Your task to perform on an android device: Open Reddit.com Image 0: 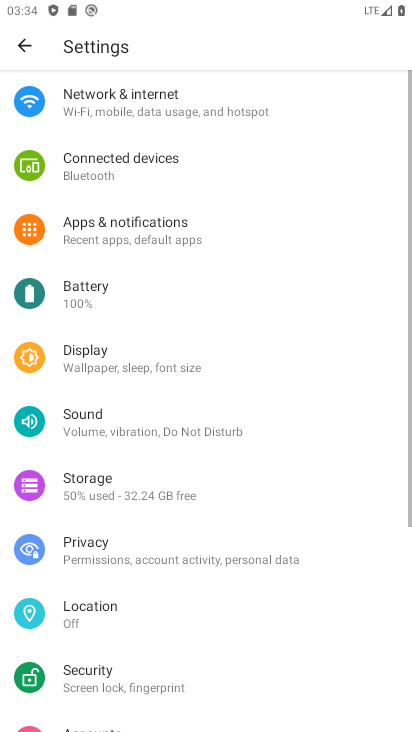
Step 0: press home button
Your task to perform on an android device: Open Reddit.com Image 1: 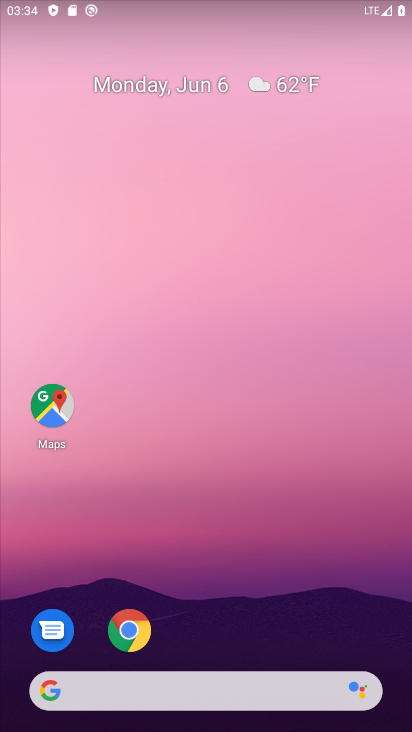
Step 1: click (142, 622)
Your task to perform on an android device: Open Reddit.com Image 2: 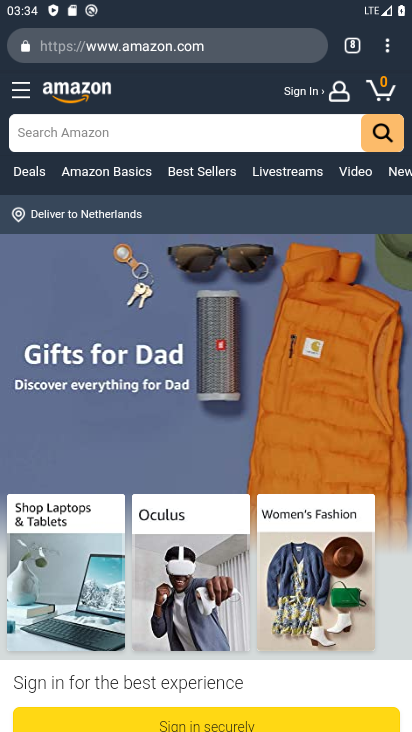
Step 2: click (161, 44)
Your task to perform on an android device: Open Reddit.com Image 3: 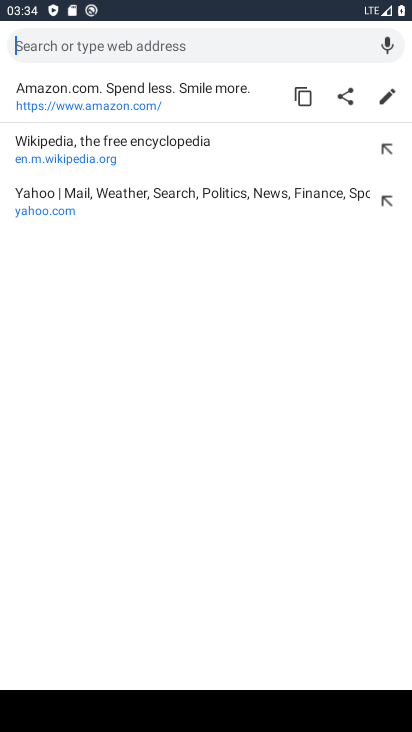
Step 3: type "Reddit.com"
Your task to perform on an android device: Open Reddit.com Image 4: 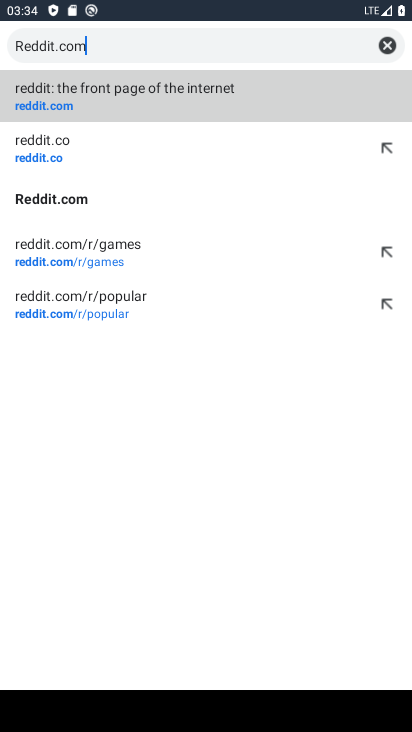
Step 4: type ""
Your task to perform on an android device: Open Reddit.com Image 5: 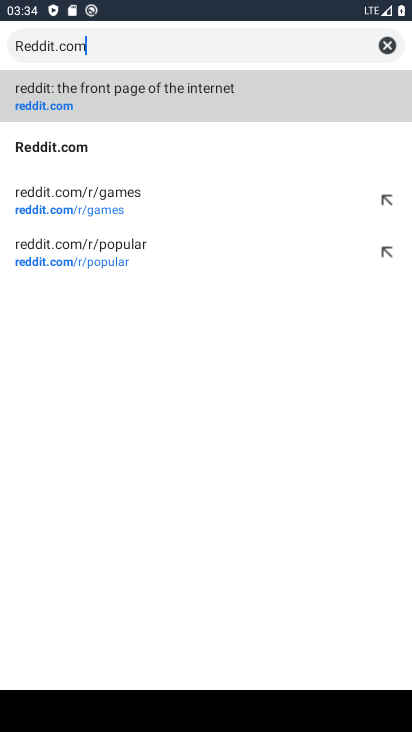
Step 5: click (109, 83)
Your task to perform on an android device: Open Reddit.com Image 6: 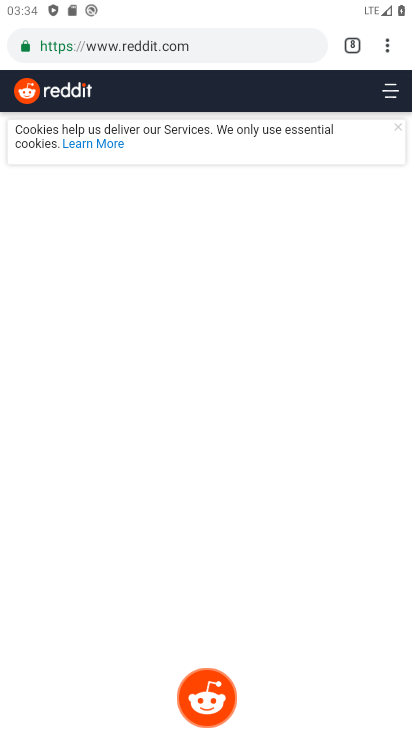
Step 6: task complete